Your task to perform on an android device: turn off improve location accuracy Image 0: 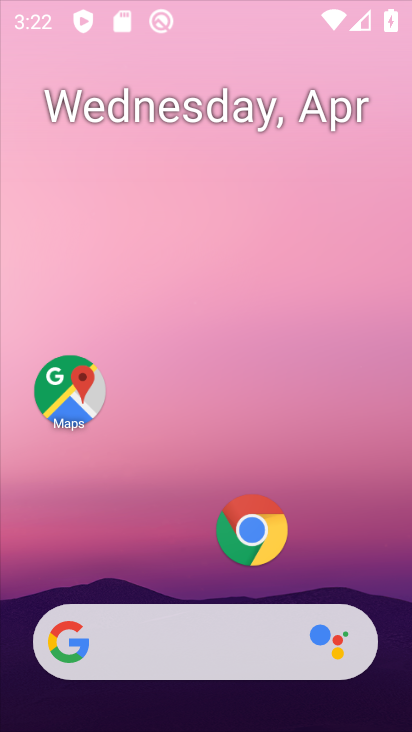
Step 0: drag from (209, 12) to (200, 526)
Your task to perform on an android device: turn off improve location accuracy Image 1: 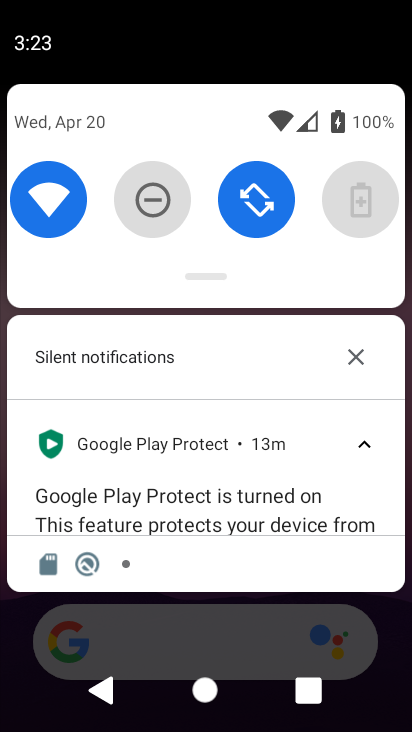
Step 1: press back button
Your task to perform on an android device: turn off improve location accuracy Image 2: 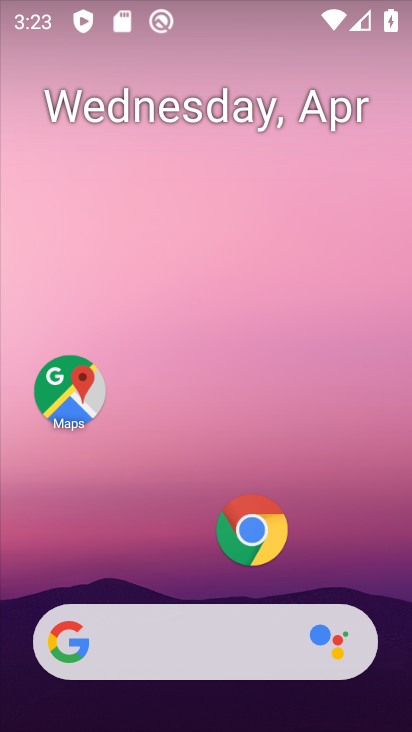
Step 2: drag from (187, 559) to (302, 29)
Your task to perform on an android device: turn off improve location accuracy Image 3: 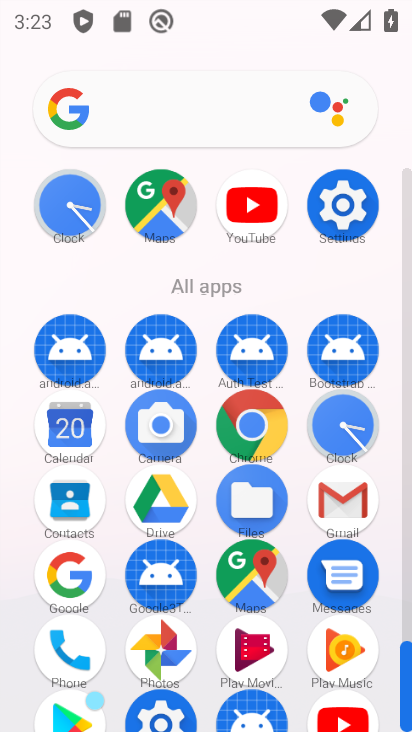
Step 3: click (354, 191)
Your task to perform on an android device: turn off improve location accuracy Image 4: 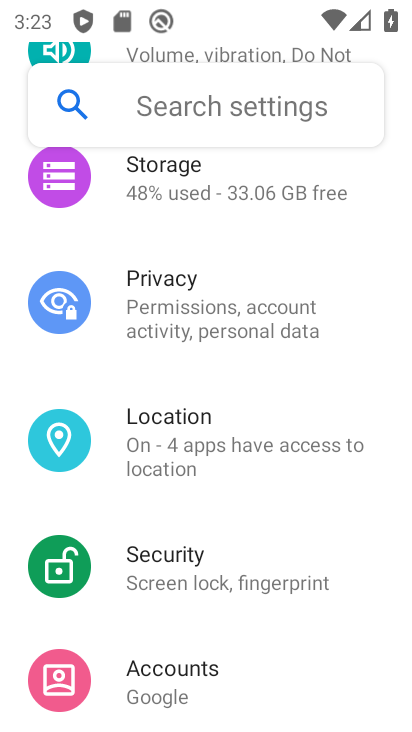
Step 4: click (236, 434)
Your task to perform on an android device: turn off improve location accuracy Image 5: 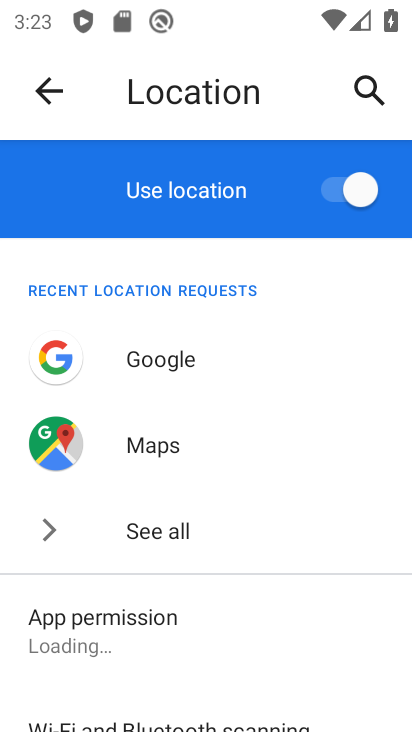
Step 5: drag from (207, 528) to (316, 141)
Your task to perform on an android device: turn off improve location accuracy Image 6: 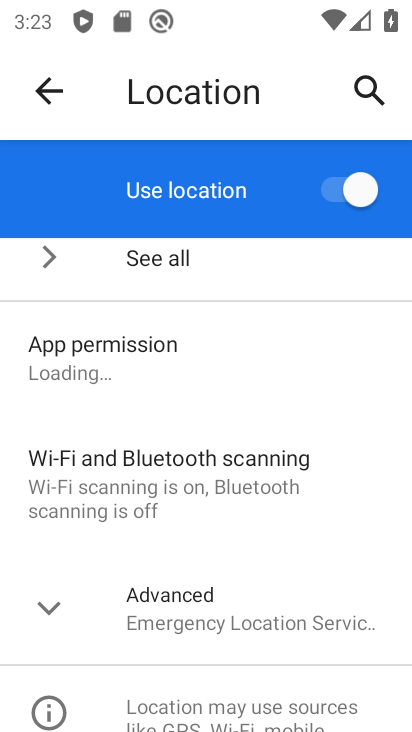
Step 6: click (202, 603)
Your task to perform on an android device: turn off improve location accuracy Image 7: 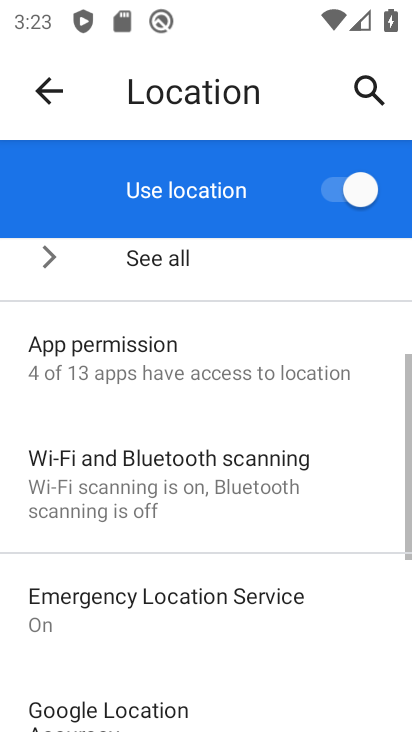
Step 7: drag from (202, 601) to (323, 178)
Your task to perform on an android device: turn off improve location accuracy Image 8: 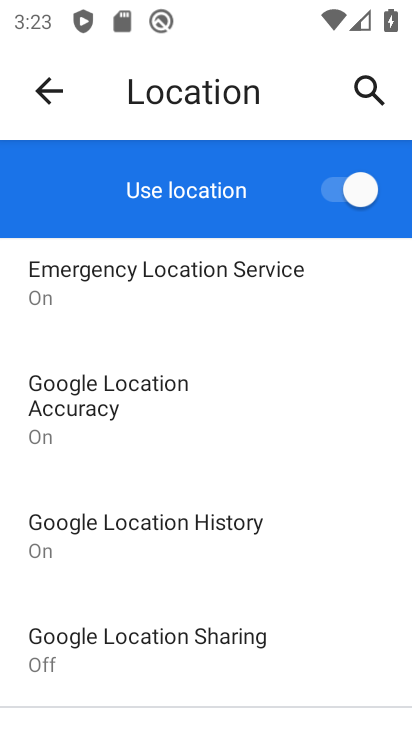
Step 8: click (133, 398)
Your task to perform on an android device: turn off improve location accuracy Image 9: 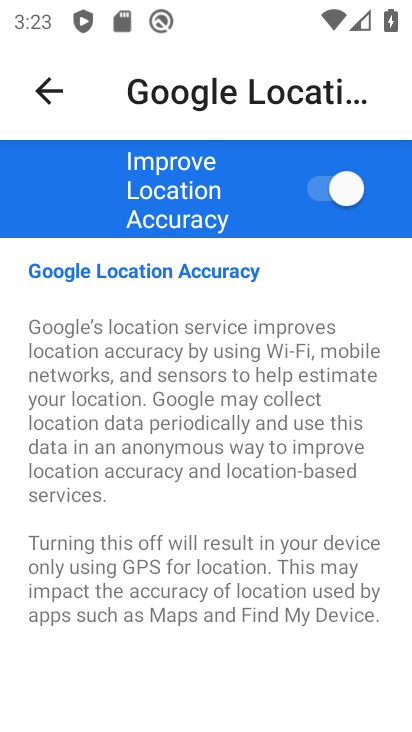
Step 9: click (345, 188)
Your task to perform on an android device: turn off improve location accuracy Image 10: 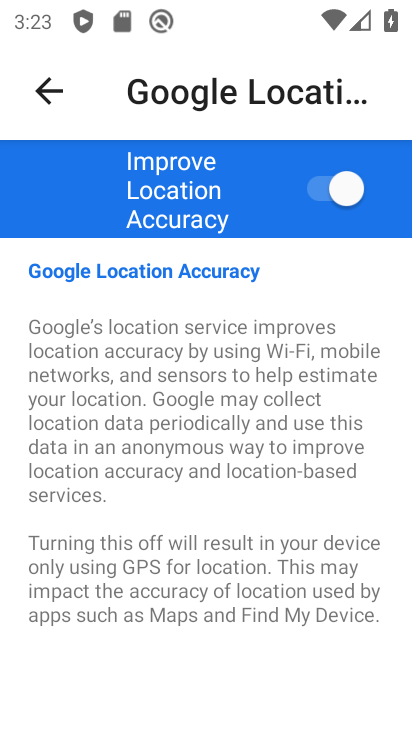
Step 10: task complete